Your task to perform on an android device: What's the news in Singapore? Image 0: 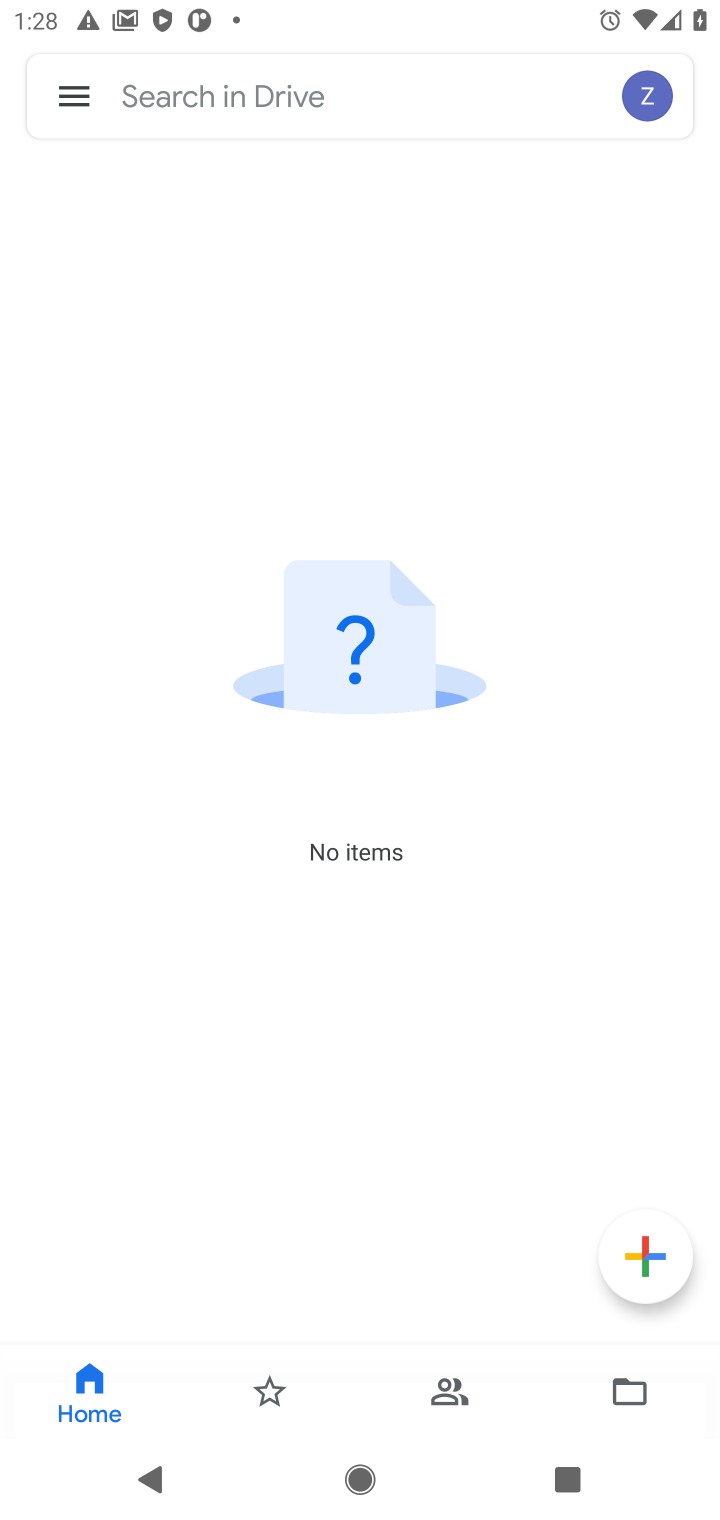
Step 0: press home button
Your task to perform on an android device: What's the news in Singapore? Image 1: 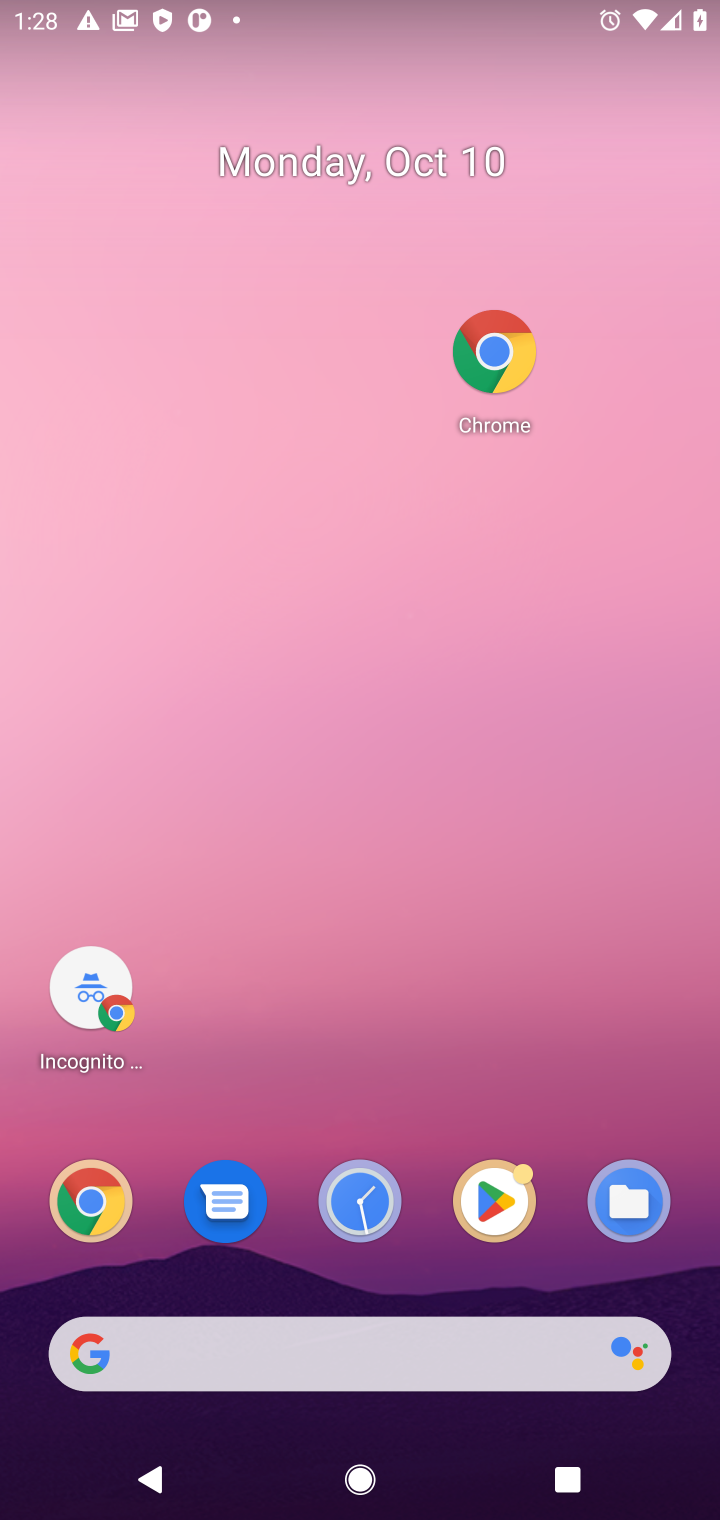
Step 1: click (500, 359)
Your task to perform on an android device: What's the news in Singapore? Image 2: 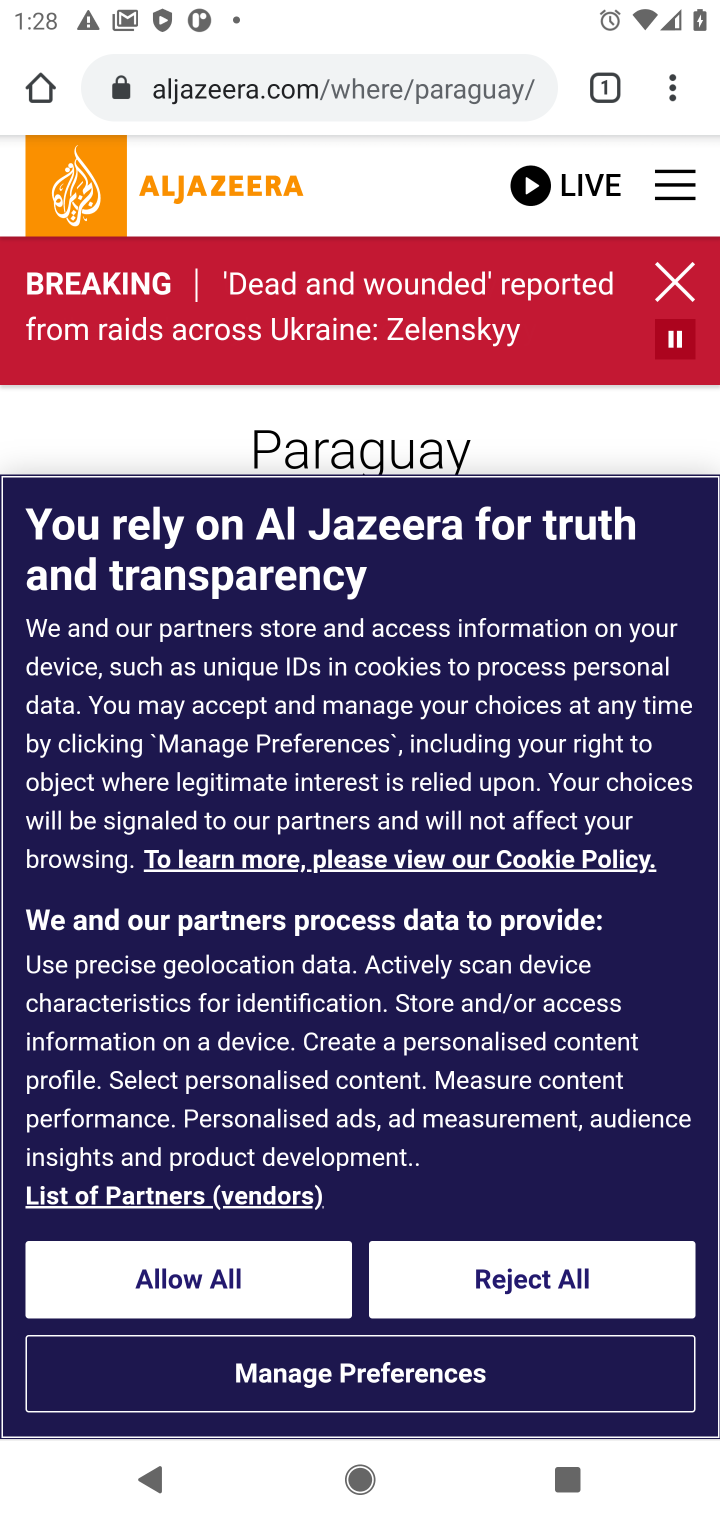
Step 2: click (519, 93)
Your task to perform on an android device: What's the news in Singapore? Image 3: 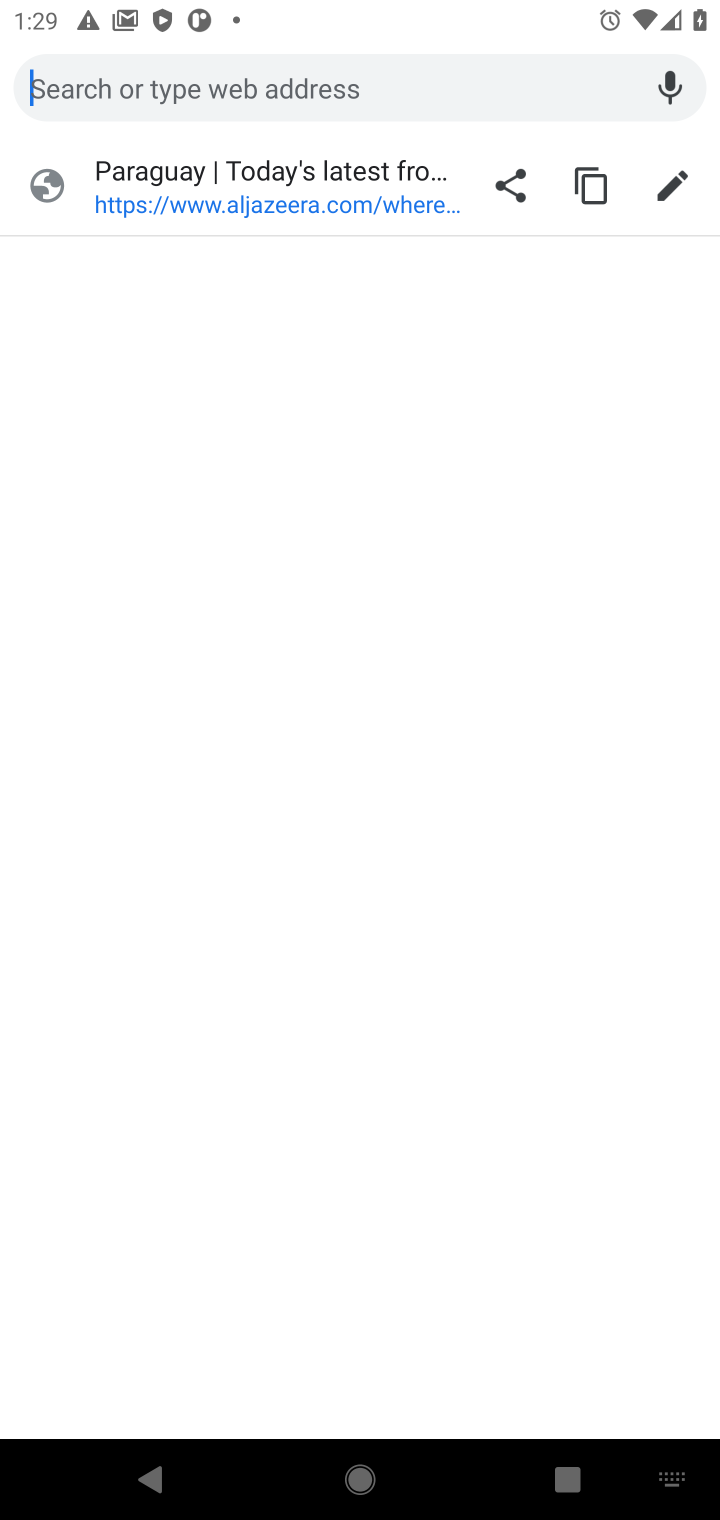
Step 3: type "singapore"
Your task to perform on an android device: What's the news in Singapore? Image 4: 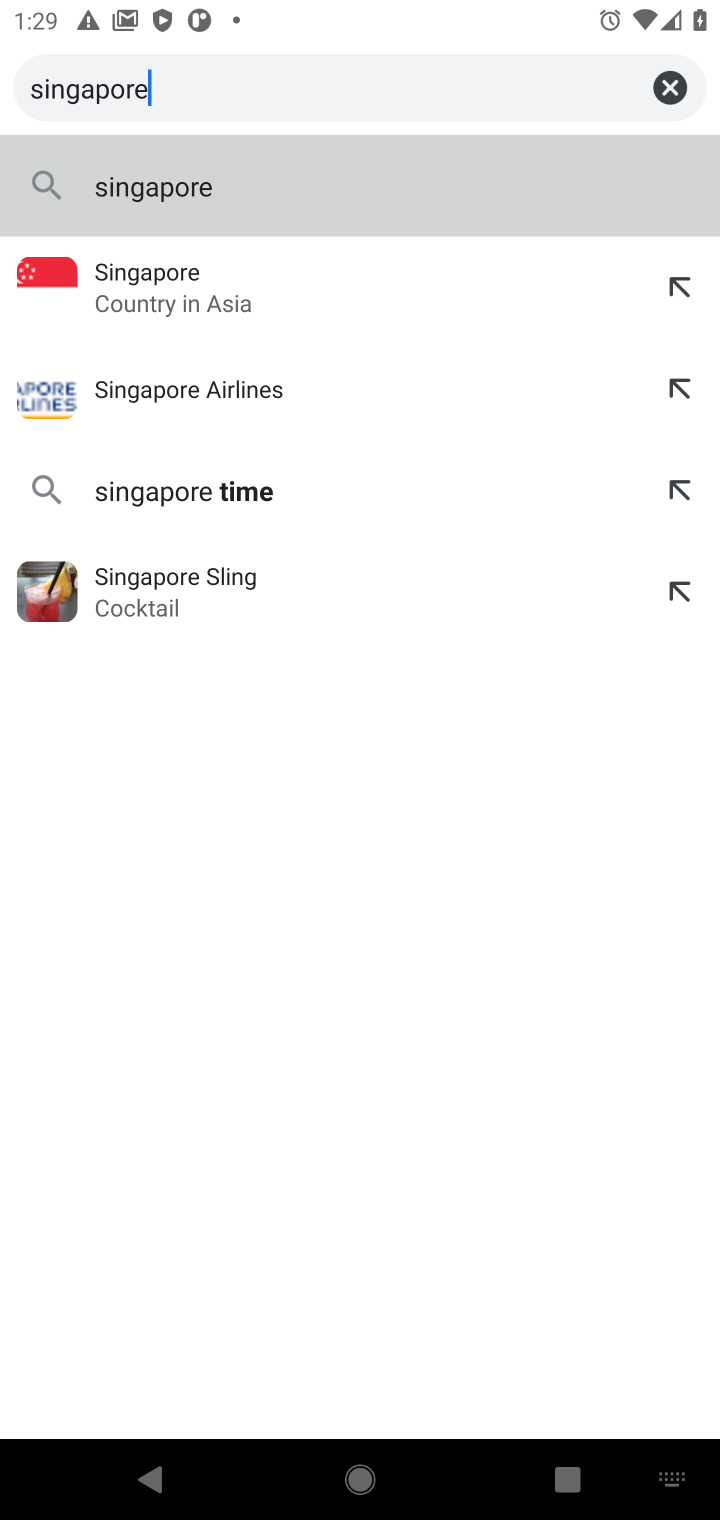
Step 4: click (160, 201)
Your task to perform on an android device: What's the news in Singapore? Image 5: 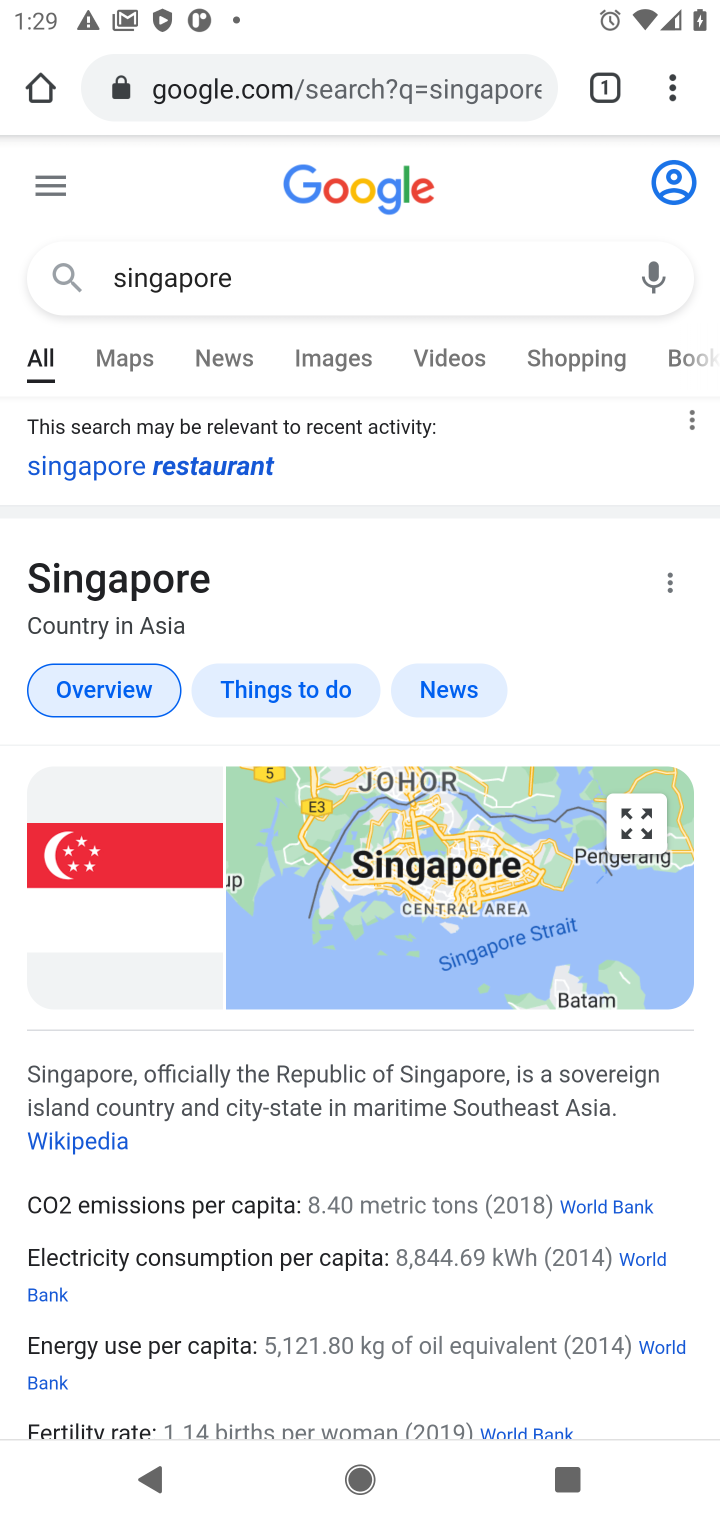
Step 5: click (221, 359)
Your task to perform on an android device: What's the news in Singapore? Image 6: 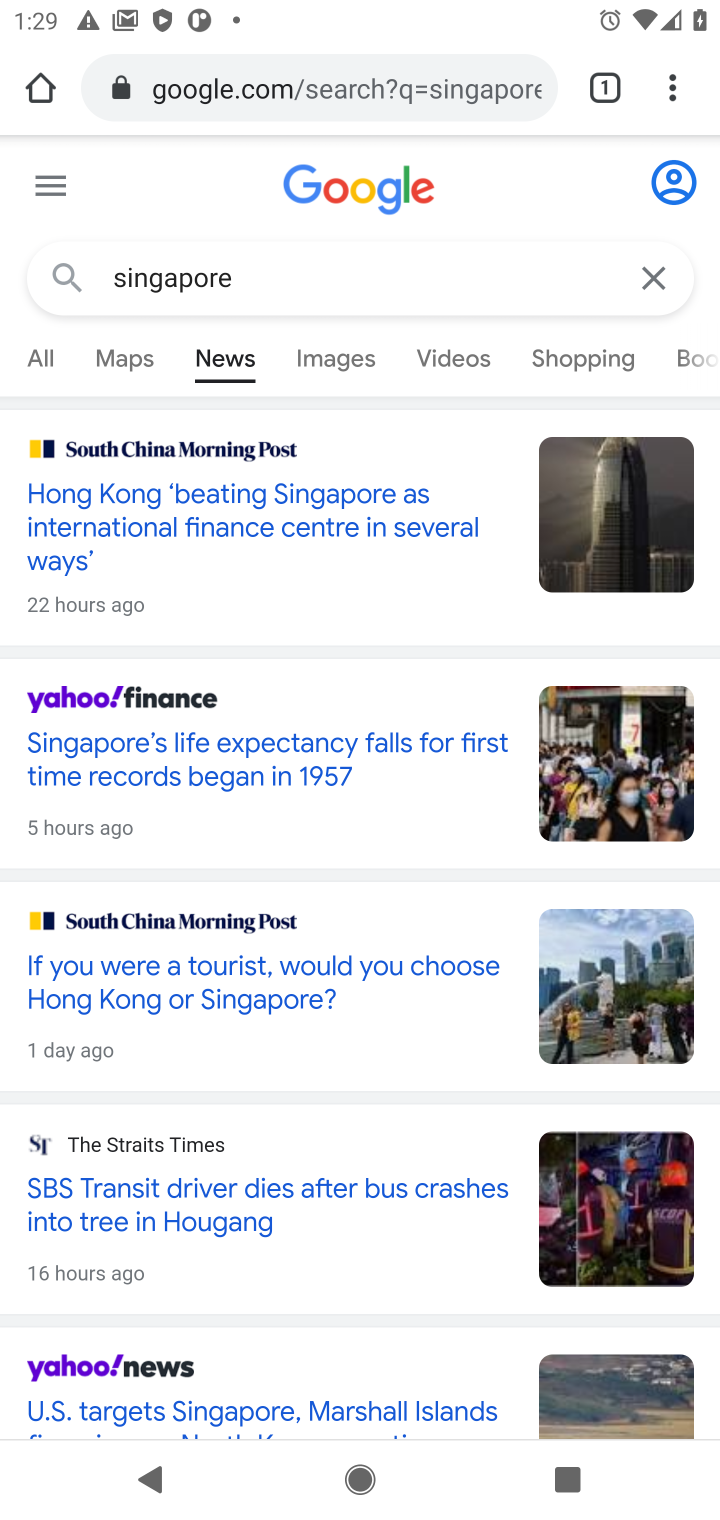
Step 6: click (180, 518)
Your task to perform on an android device: What's the news in Singapore? Image 7: 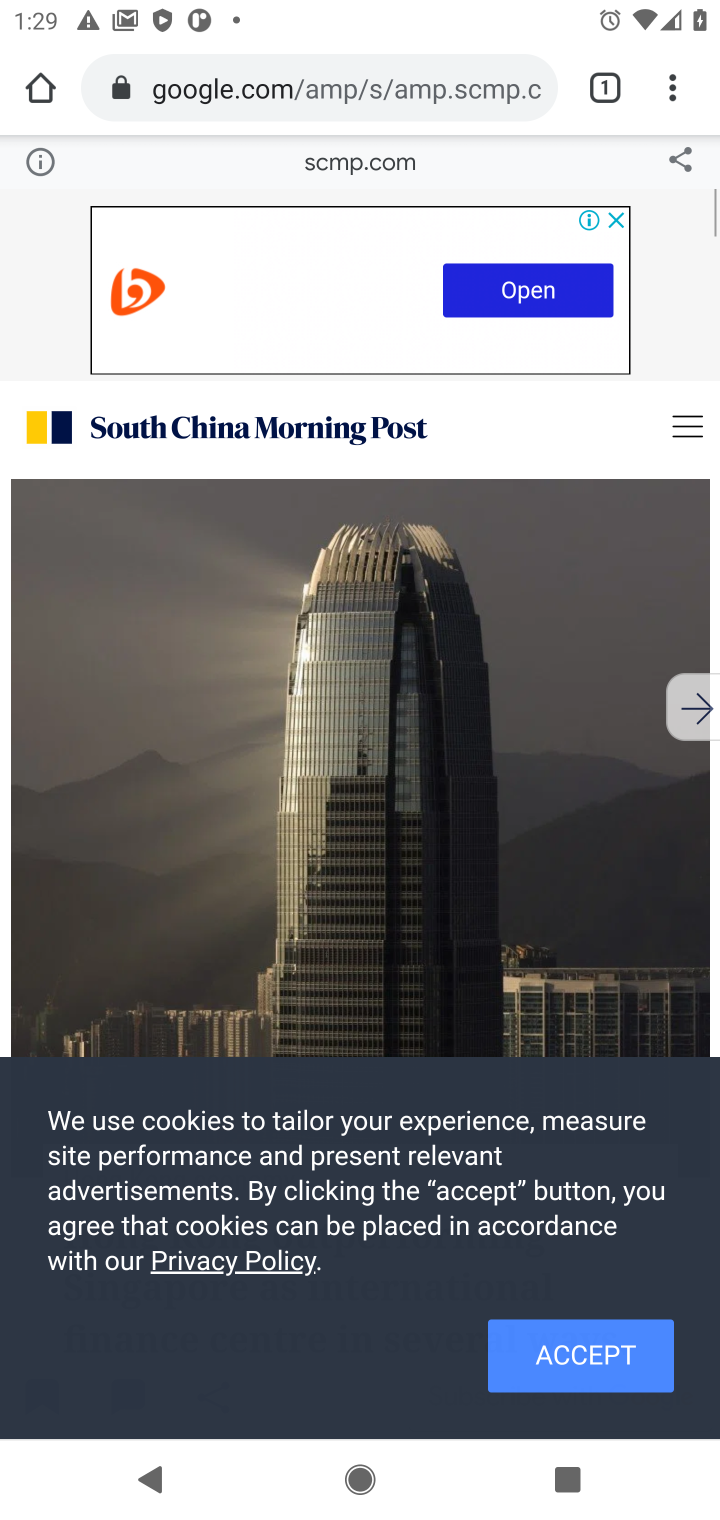
Step 7: task complete